Your task to perform on an android device: turn on javascript in the chrome app Image 0: 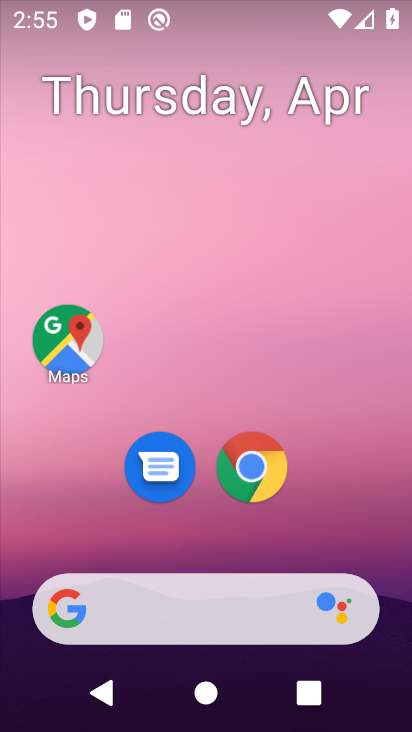
Step 0: click (262, 470)
Your task to perform on an android device: turn on javascript in the chrome app Image 1: 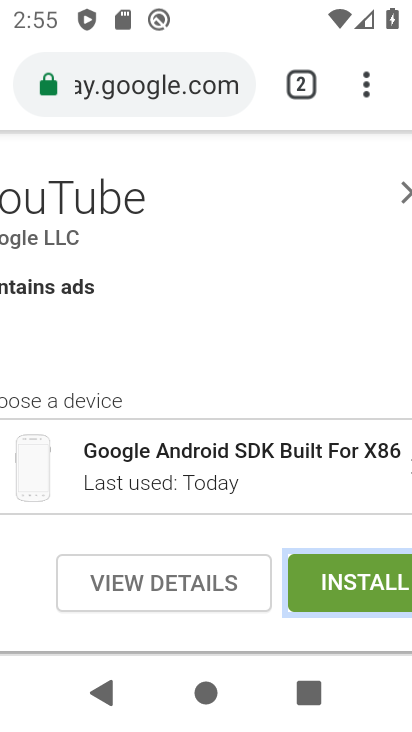
Step 1: click (366, 92)
Your task to perform on an android device: turn on javascript in the chrome app Image 2: 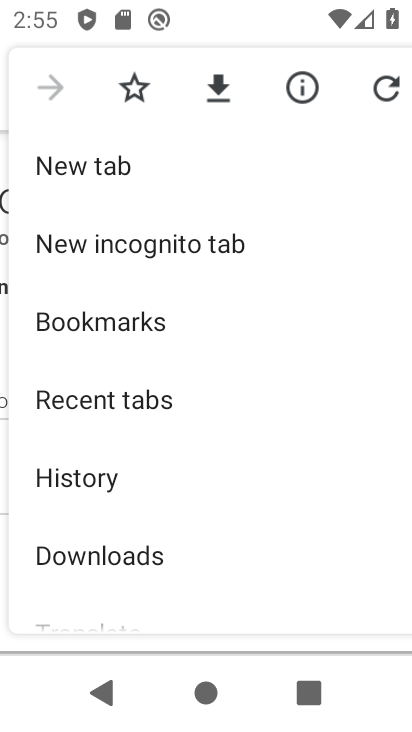
Step 2: drag from (247, 594) to (274, 172)
Your task to perform on an android device: turn on javascript in the chrome app Image 3: 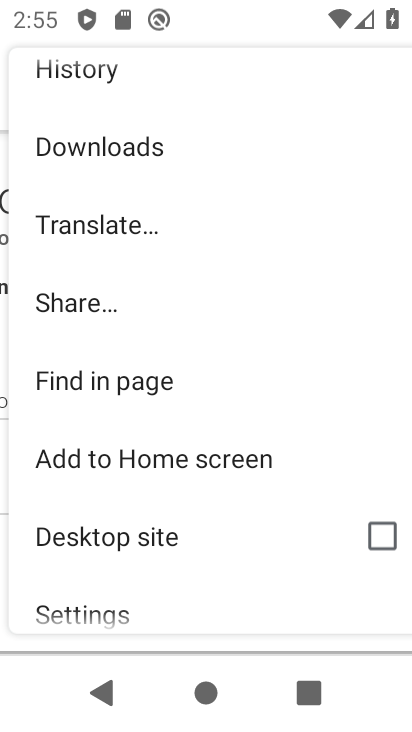
Step 3: drag from (211, 517) to (229, 191)
Your task to perform on an android device: turn on javascript in the chrome app Image 4: 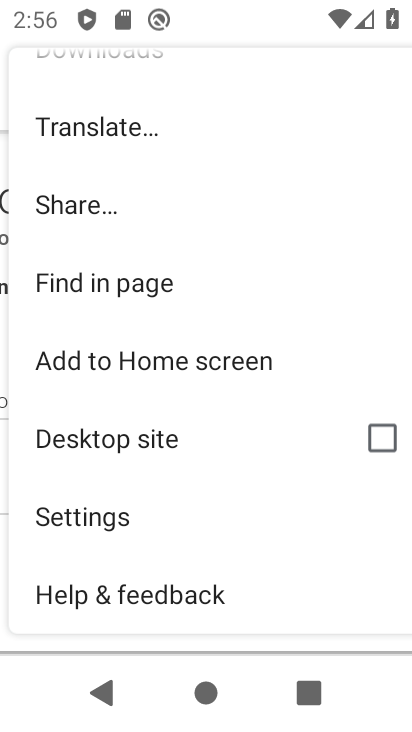
Step 4: click (196, 513)
Your task to perform on an android device: turn on javascript in the chrome app Image 5: 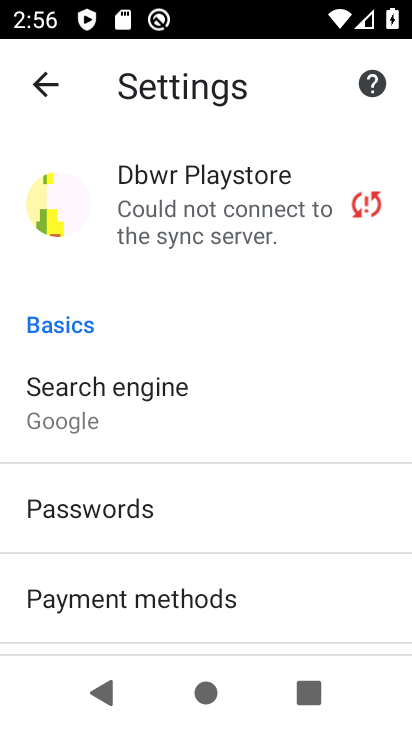
Step 5: drag from (224, 556) to (231, 253)
Your task to perform on an android device: turn on javascript in the chrome app Image 6: 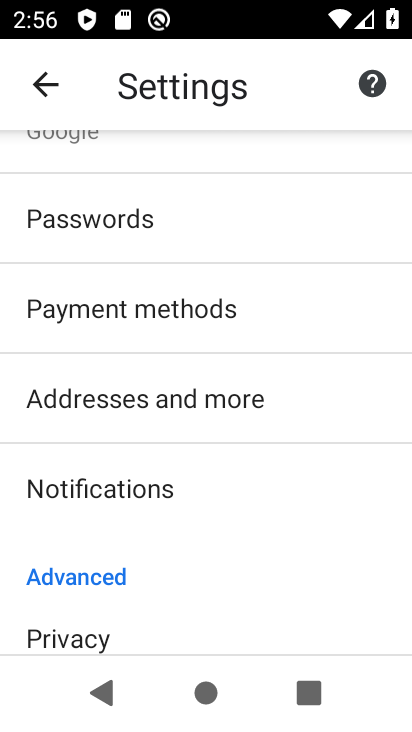
Step 6: drag from (221, 520) to (260, 234)
Your task to perform on an android device: turn on javascript in the chrome app Image 7: 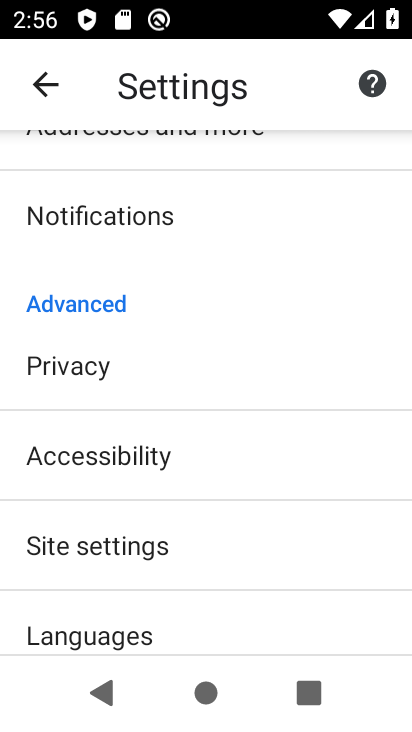
Step 7: drag from (230, 546) to (239, 193)
Your task to perform on an android device: turn on javascript in the chrome app Image 8: 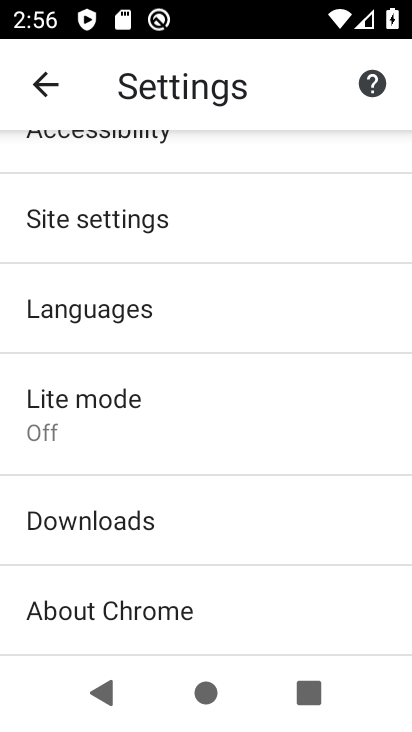
Step 8: click (231, 214)
Your task to perform on an android device: turn on javascript in the chrome app Image 9: 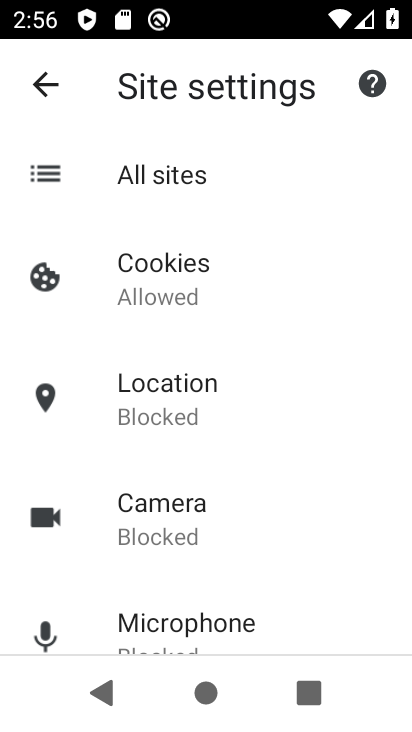
Step 9: drag from (242, 531) to (240, 183)
Your task to perform on an android device: turn on javascript in the chrome app Image 10: 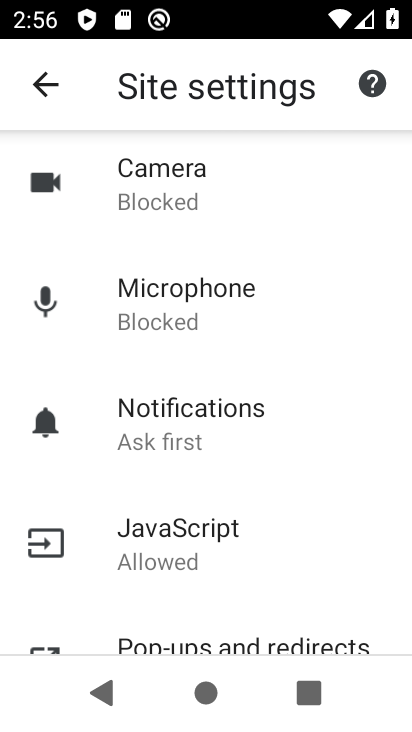
Step 10: click (232, 528)
Your task to perform on an android device: turn on javascript in the chrome app Image 11: 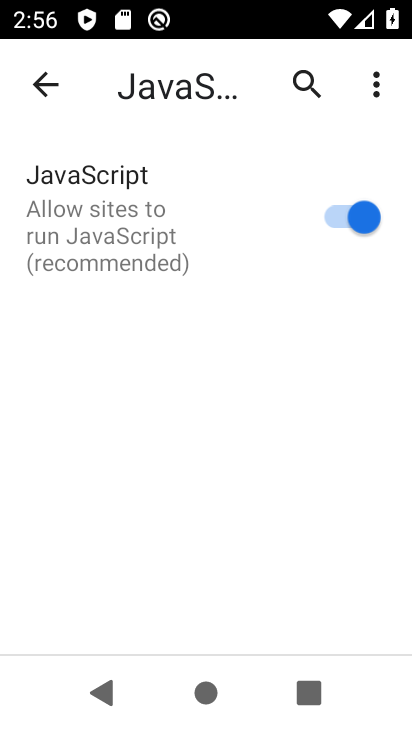
Step 11: task complete